Your task to perform on an android device: Go to network settings Image 0: 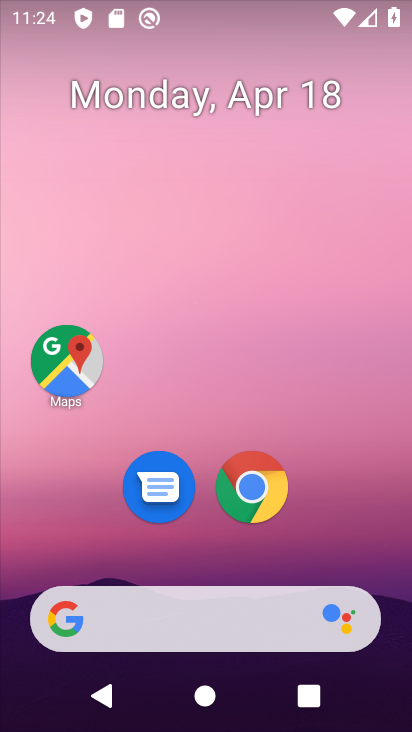
Step 0: drag from (211, 566) to (214, 16)
Your task to perform on an android device: Go to network settings Image 1: 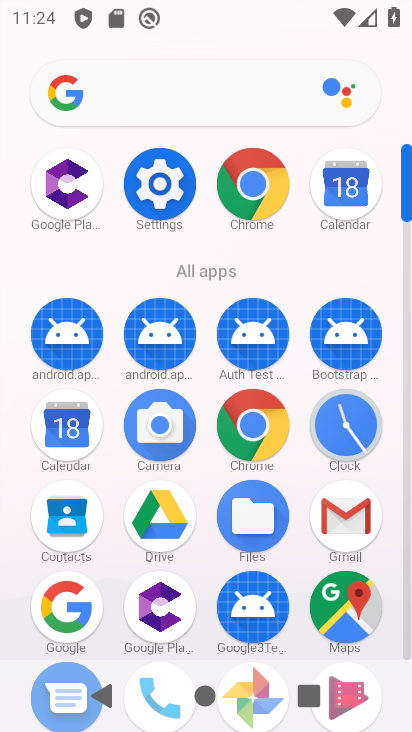
Step 1: click (151, 180)
Your task to perform on an android device: Go to network settings Image 2: 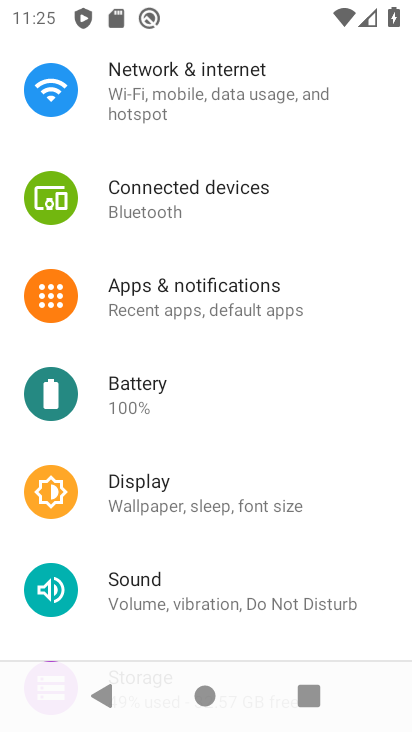
Step 2: click (146, 70)
Your task to perform on an android device: Go to network settings Image 3: 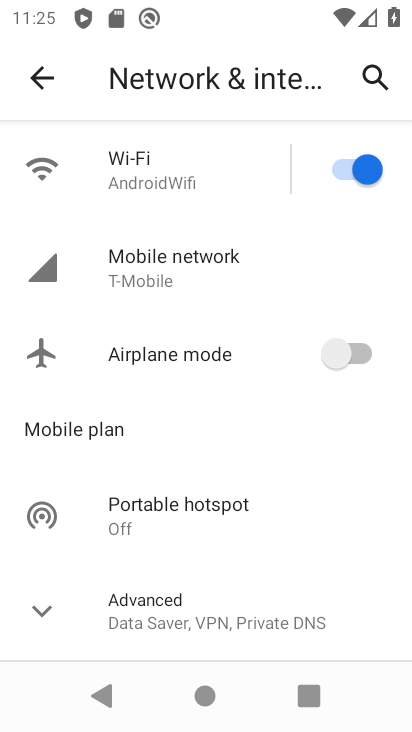
Step 3: click (145, 253)
Your task to perform on an android device: Go to network settings Image 4: 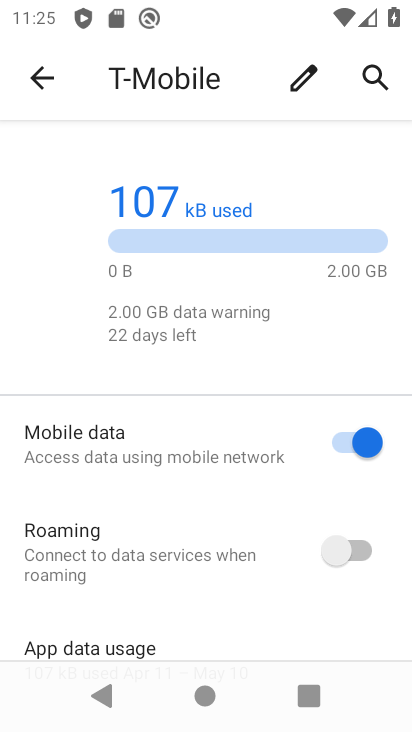
Step 4: task complete